Your task to perform on an android device: check the backup settings in the google photos Image 0: 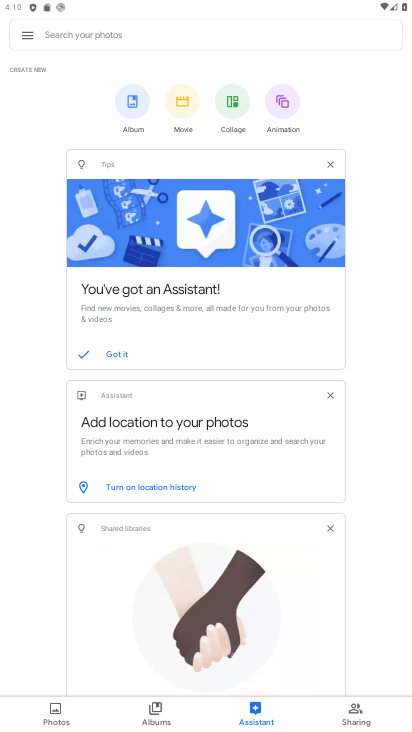
Step 0: press home button
Your task to perform on an android device: check the backup settings in the google photos Image 1: 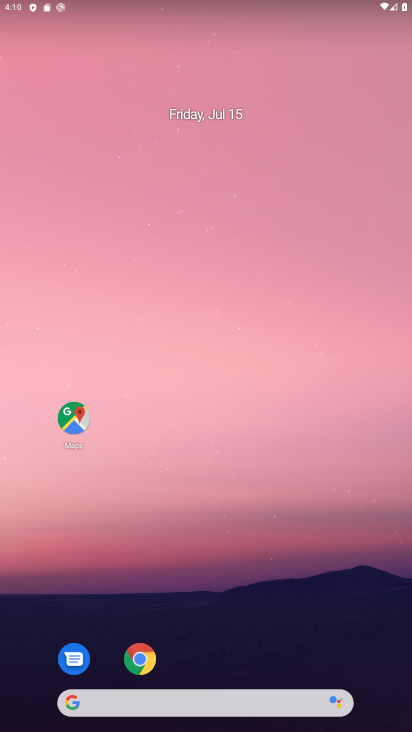
Step 1: drag from (318, 566) to (311, 2)
Your task to perform on an android device: check the backup settings in the google photos Image 2: 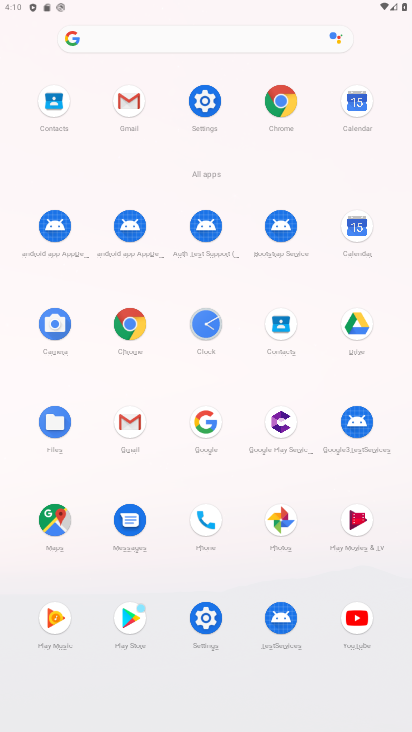
Step 2: click (278, 518)
Your task to perform on an android device: check the backup settings in the google photos Image 3: 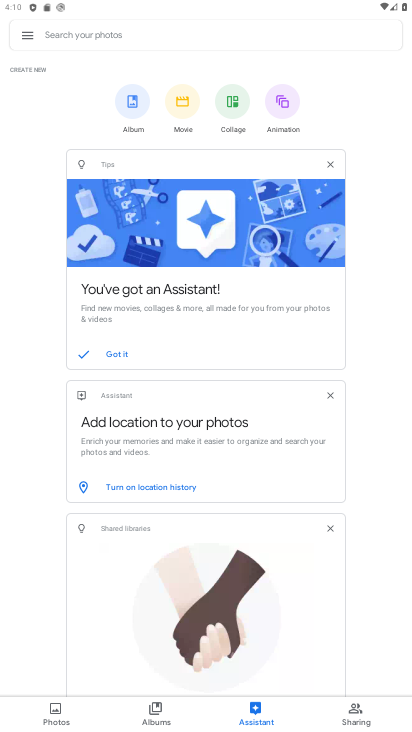
Step 3: click (22, 38)
Your task to perform on an android device: check the backup settings in the google photos Image 4: 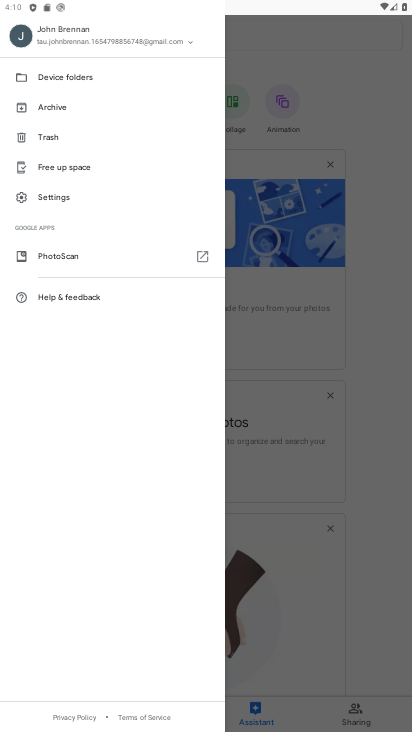
Step 4: click (61, 197)
Your task to perform on an android device: check the backup settings in the google photos Image 5: 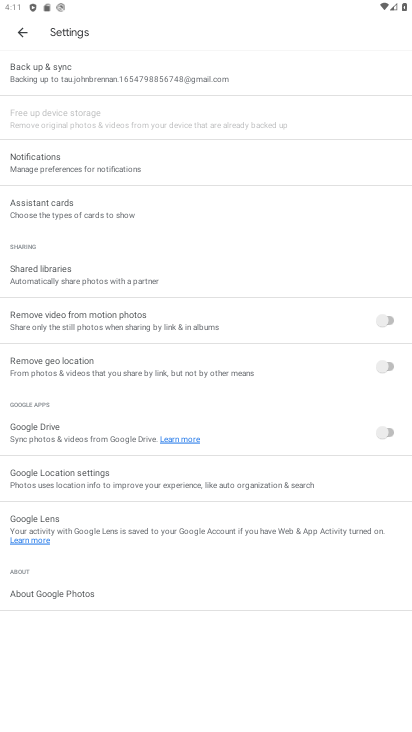
Step 5: click (157, 66)
Your task to perform on an android device: check the backup settings in the google photos Image 6: 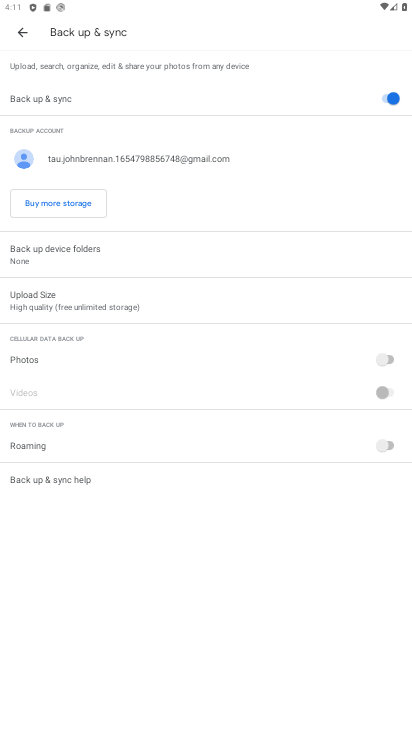
Step 6: task complete